Your task to perform on an android device: delete browsing data in the chrome app Image 0: 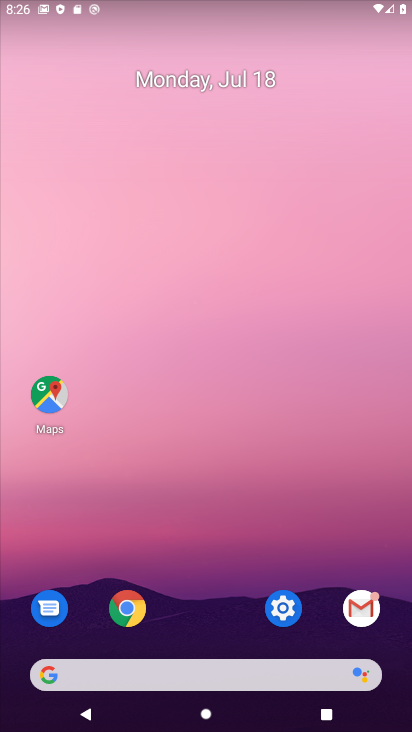
Step 0: press home button
Your task to perform on an android device: delete browsing data in the chrome app Image 1: 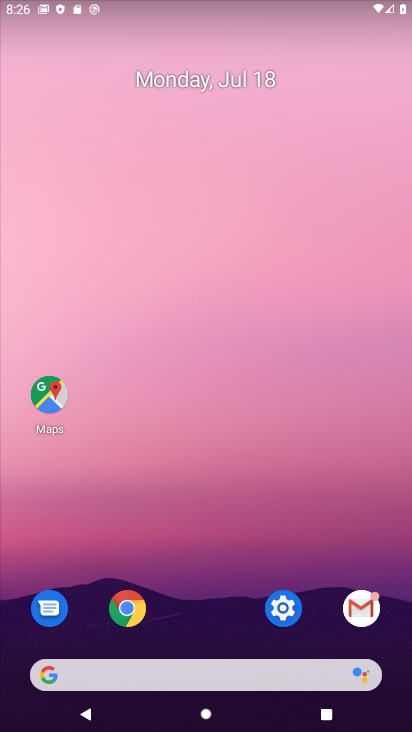
Step 1: drag from (269, 693) to (245, 218)
Your task to perform on an android device: delete browsing data in the chrome app Image 2: 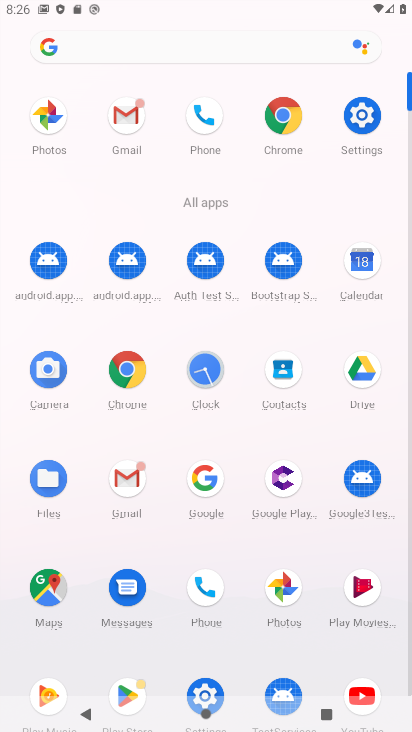
Step 2: click (279, 130)
Your task to perform on an android device: delete browsing data in the chrome app Image 3: 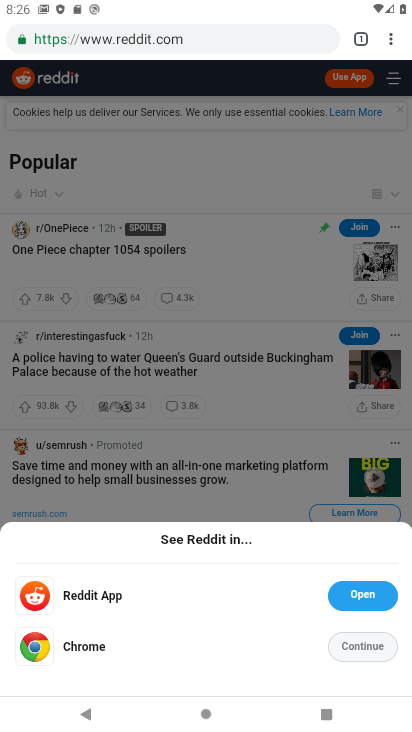
Step 3: click (360, 640)
Your task to perform on an android device: delete browsing data in the chrome app Image 4: 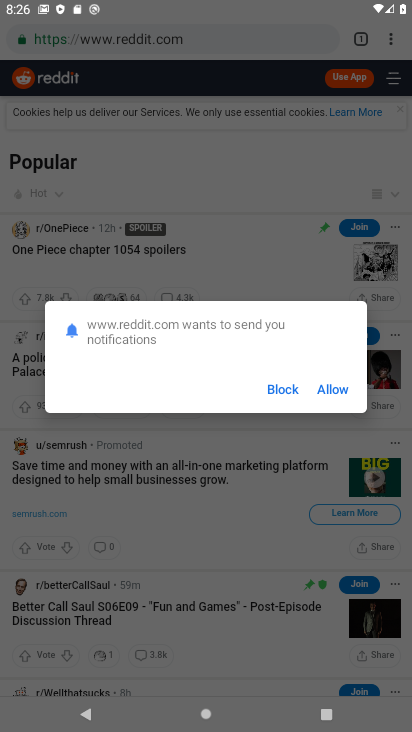
Step 4: click (330, 392)
Your task to perform on an android device: delete browsing data in the chrome app Image 5: 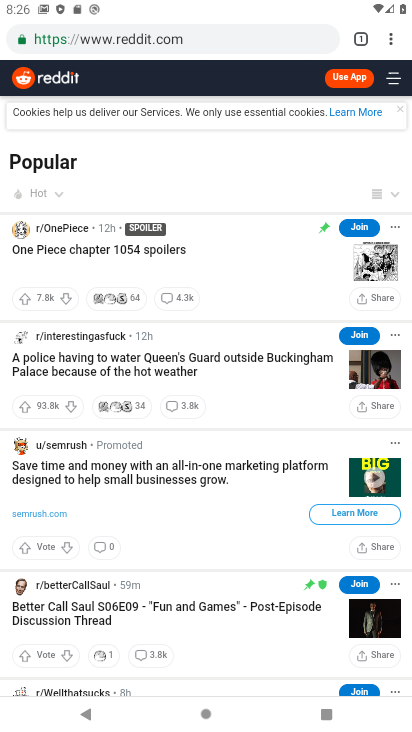
Step 5: click (382, 49)
Your task to perform on an android device: delete browsing data in the chrome app Image 6: 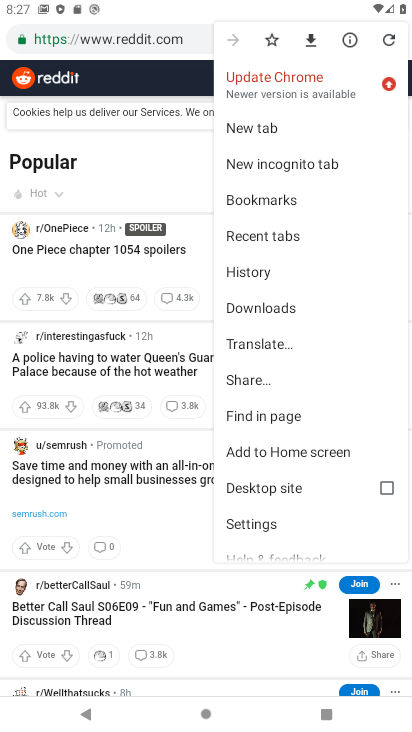
Step 6: click (264, 522)
Your task to perform on an android device: delete browsing data in the chrome app Image 7: 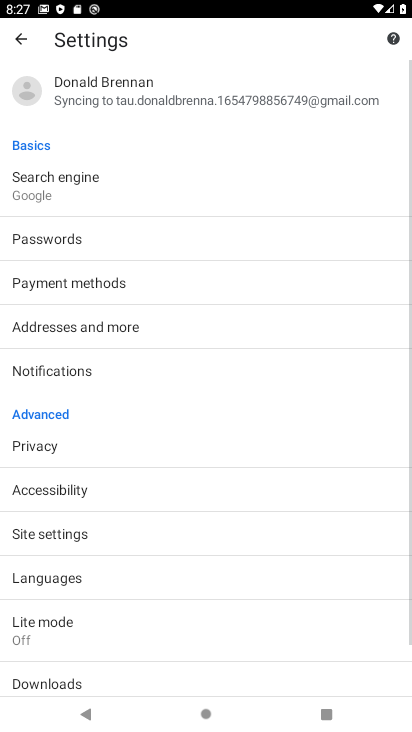
Step 7: click (76, 451)
Your task to perform on an android device: delete browsing data in the chrome app Image 8: 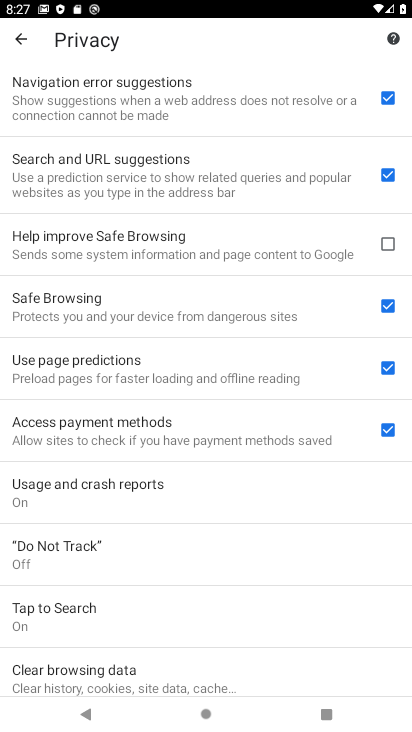
Step 8: click (89, 678)
Your task to perform on an android device: delete browsing data in the chrome app Image 9: 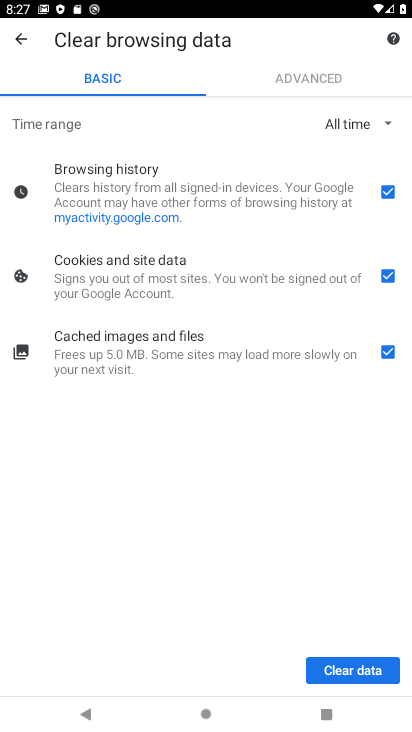
Step 9: click (370, 682)
Your task to perform on an android device: delete browsing data in the chrome app Image 10: 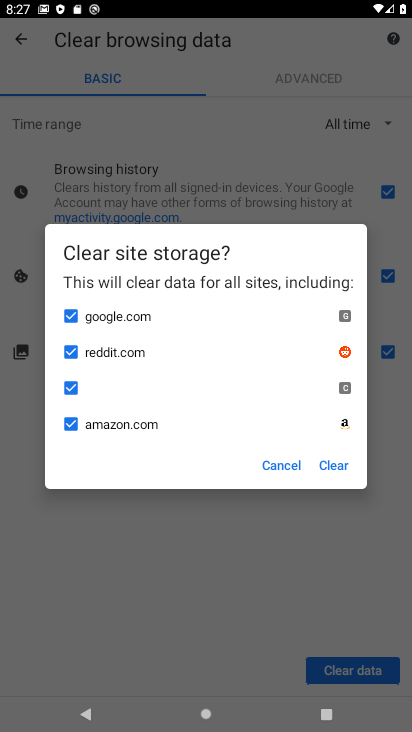
Step 10: task complete